Your task to perform on an android device: turn on translation in the chrome app Image 0: 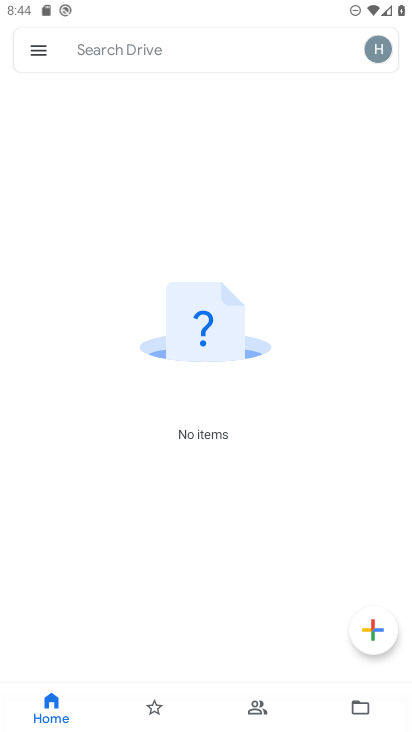
Step 0: press home button
Your task to perform on an android device: turn on translation in the chrome app Image 1: 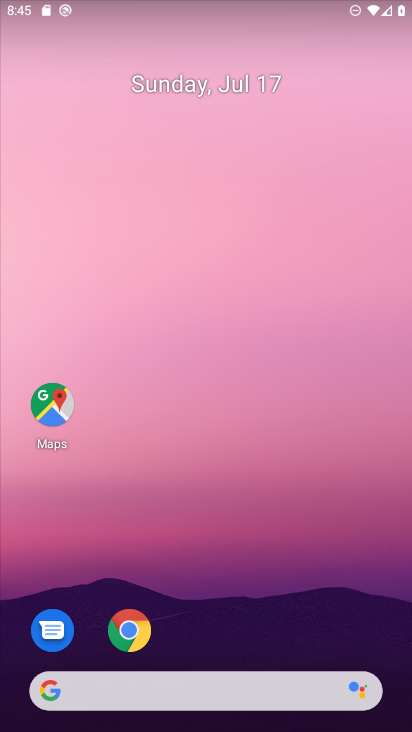
Step 1: drag from (202, 379) to (109, 37)
Your task to perform on an android device: turn on translation in the chrome app Image 2: 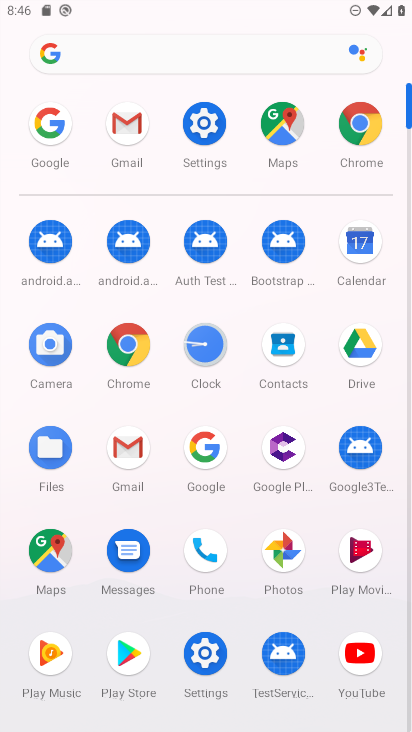
Step 2: click (134, 348)
Your task to perform on an android device: turn on translation in the chrome app Image 3: 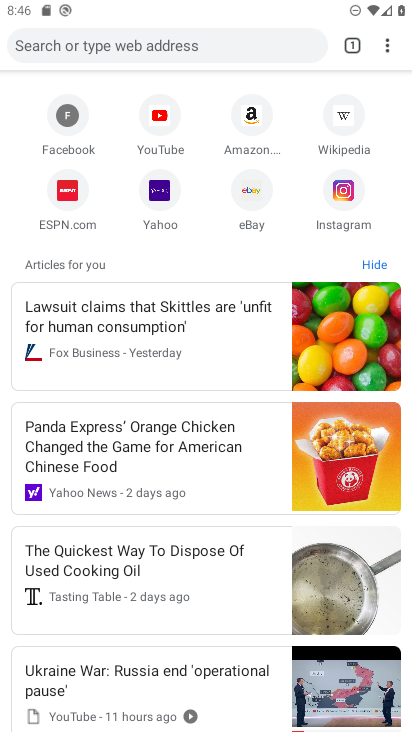
Step 3: click (383, 38)
Your task to perform on an android device: turn on translation in the chrome app Image 4: 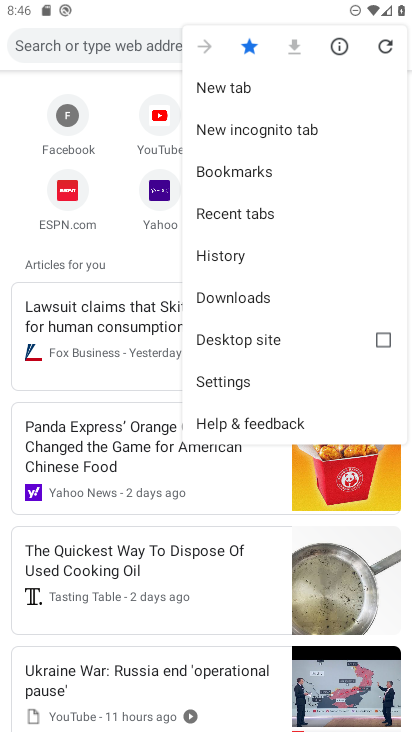
Step 4: click (234, 377)
Your task to perform on an android device: turn on translation in the chrome app Image 5: 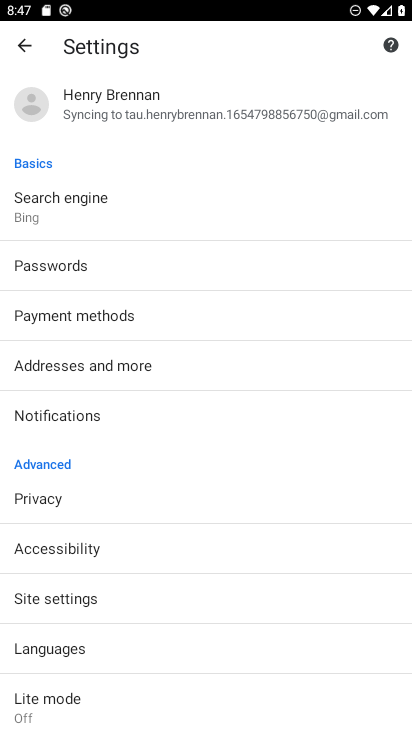
Step 5: click (83, 658)
Your task to perform on an android device: turn on translation in the chrome app Image 6: 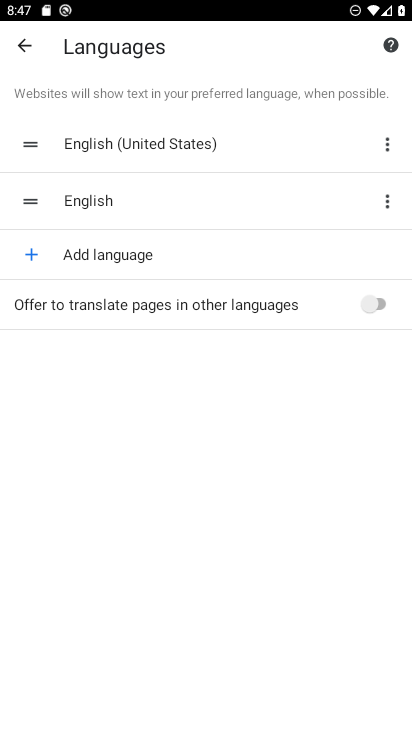
Step 6: click (390, 304)
Your task to perform on an android device: turn on translation in the chrome app Image 7: 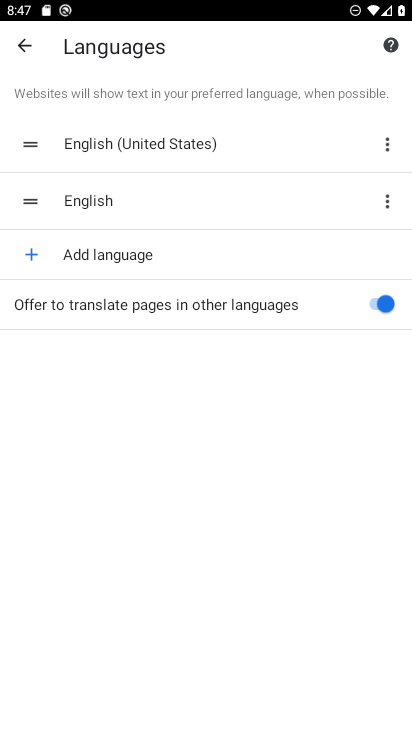
Step 7: task complete